Your task to perform on an android device: Open eBay Image 0: 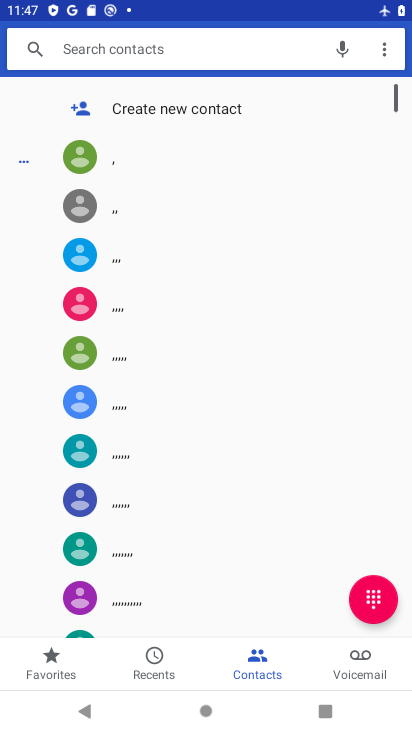
Step 0: press home button
Your task to perform on an android device: Open eBay Image 1: 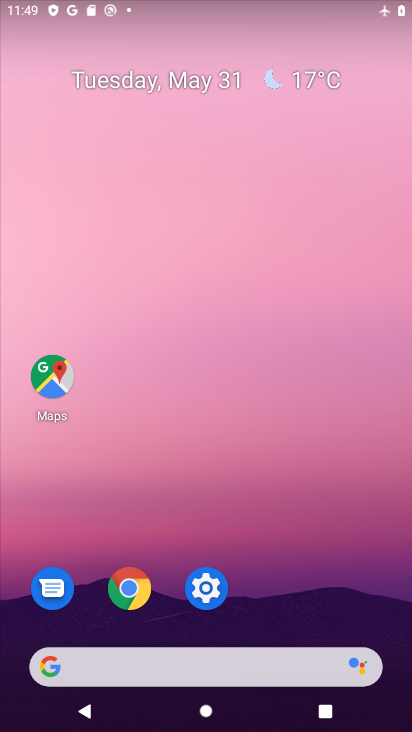
Step 1: drag from (251, 704) to (280, 164)
Your task to perform on an android device: Open eBay Image 2: 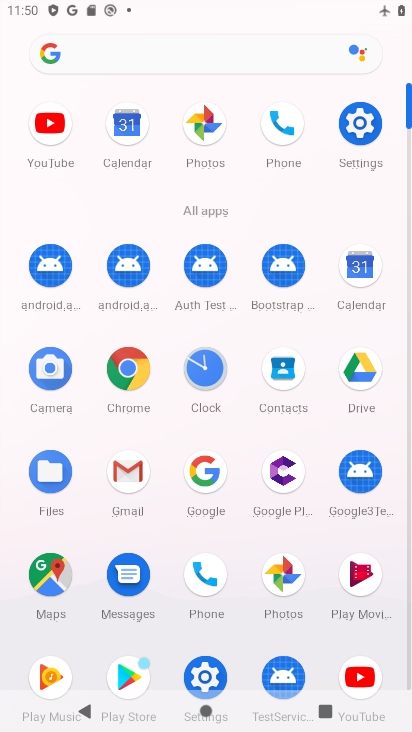
Step 2: click (133, 357)
Your task to perform on an android device: Open eBay Image 3: 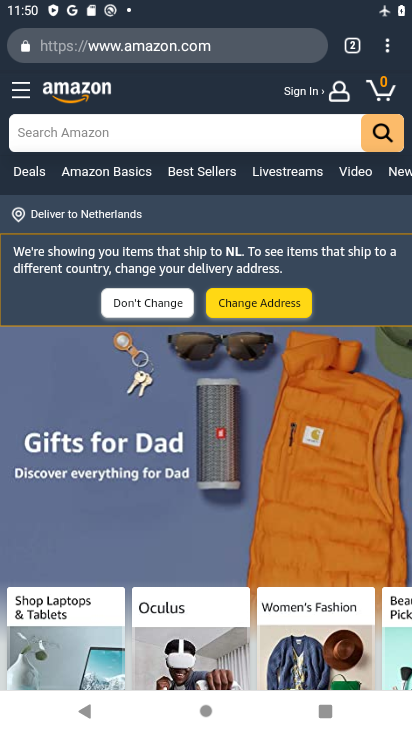
Step 3: click (351, 56)
Your task to perform on an android device: Open eBay Image 4: 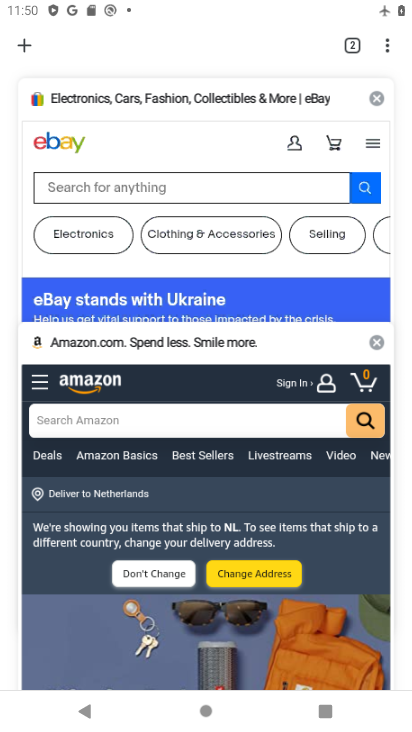
Step 4: click (19, 44)
Your task to perform on an android device: Open eBay Image 5: 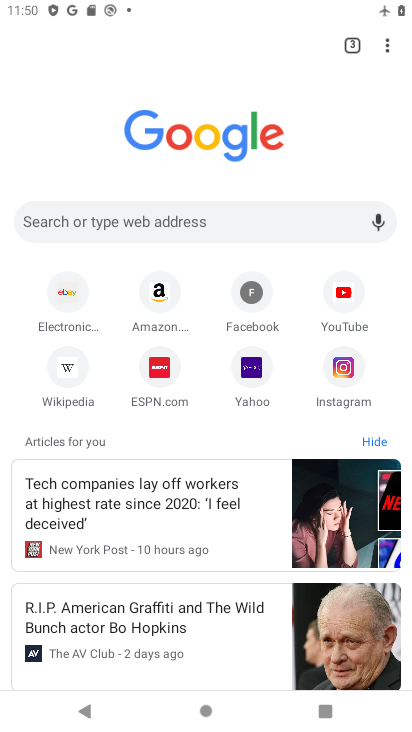
Step 5: click (70, 299)
Your task to perform on an android device: Open eBay Image 6: 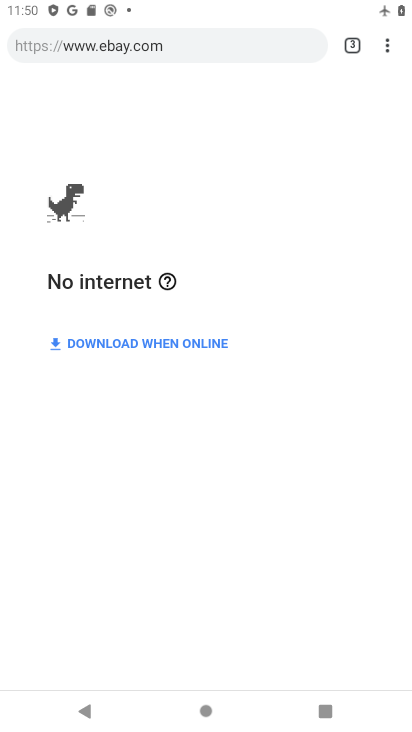
Step 6: press home button
Your task to perform on an android device: Open eBay Image 7: 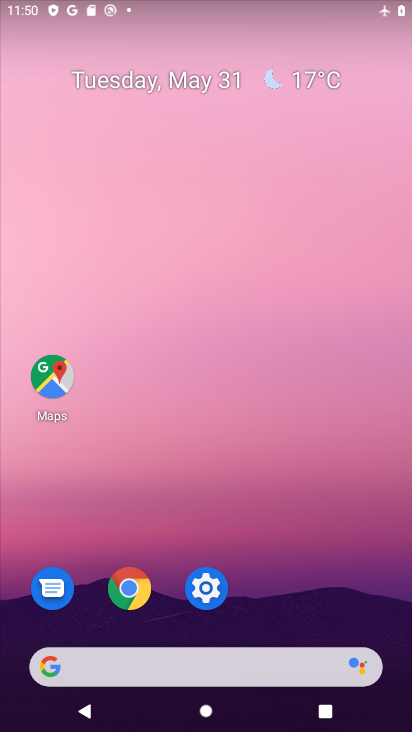
Step 7: drag from (250, 690) to (228, 262)
Your task to perform on an android device: Open eBay Image 8: 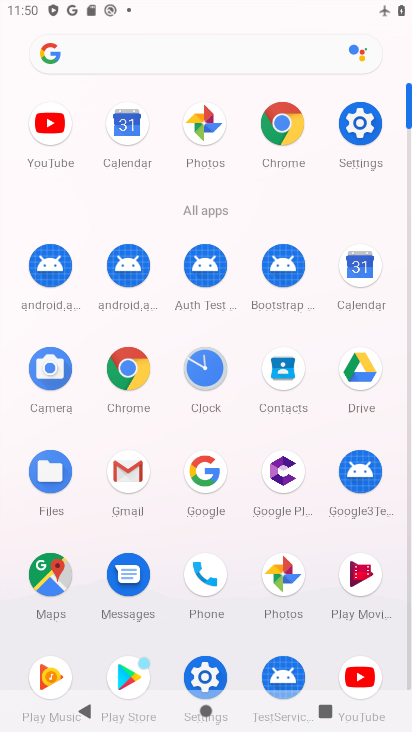
Step 8: click (347, 128)
Your task to perform on an android device: Open eBay Image 9: 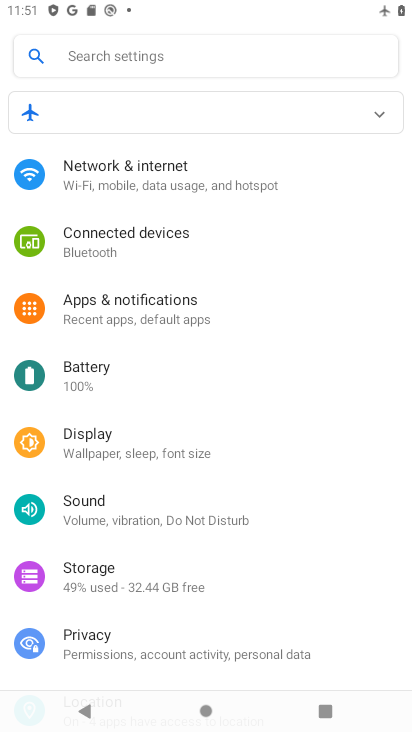
Step 9: click (384, 115)
Your task to perform on an android device: Open eBay Image 10: 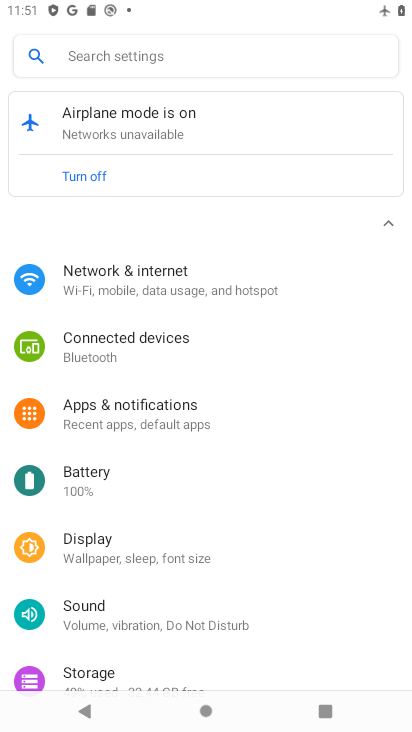
Step 10: click (89, 173)
Your task to perform on an android device: Open eBay Image 11: 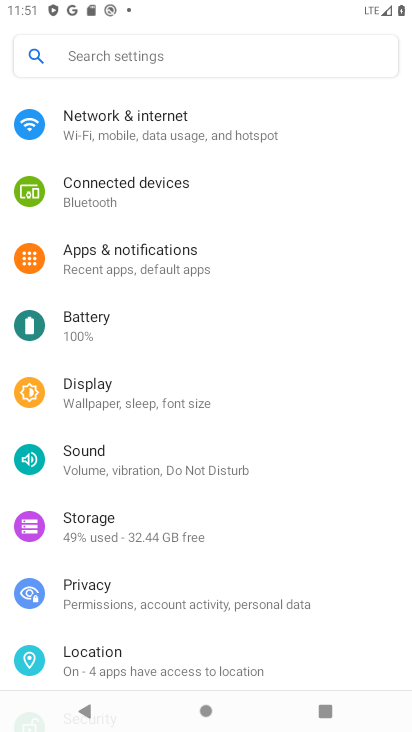
Step 11: press home button
Your task to perform on an android device: Open eBay Image 12: 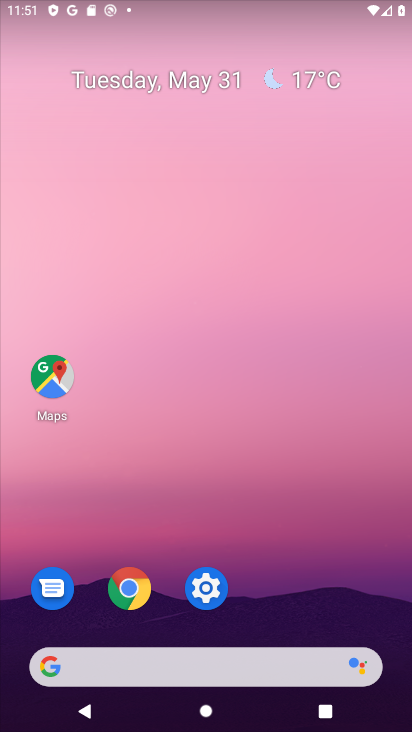
Step 12: click (128, 601)
Your task to perform on an android device: Open eBay Image 13: 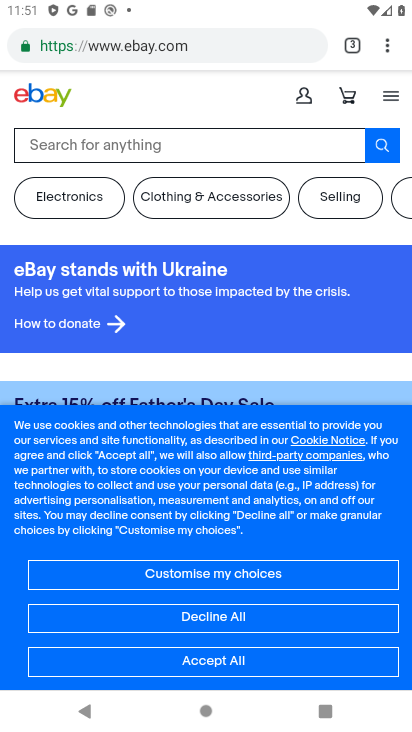
Step 13: task complete